Your task to perform on an android device: make emails show in primary in the gmail app Image 0: 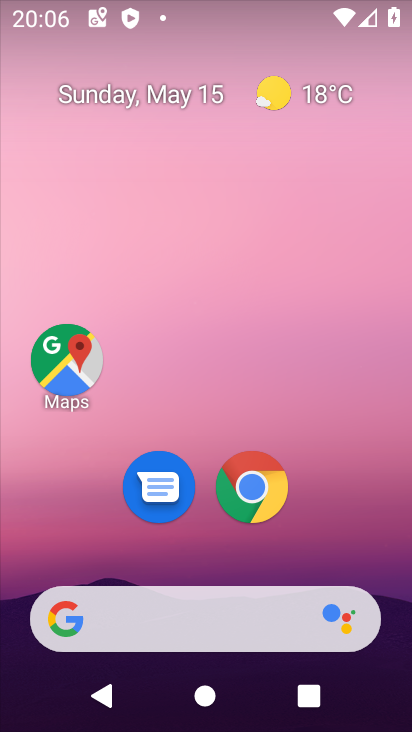
Step 0: click (383, 310)
Your task to perform on an android device: make emails show in primary in the gmail app Image 1: 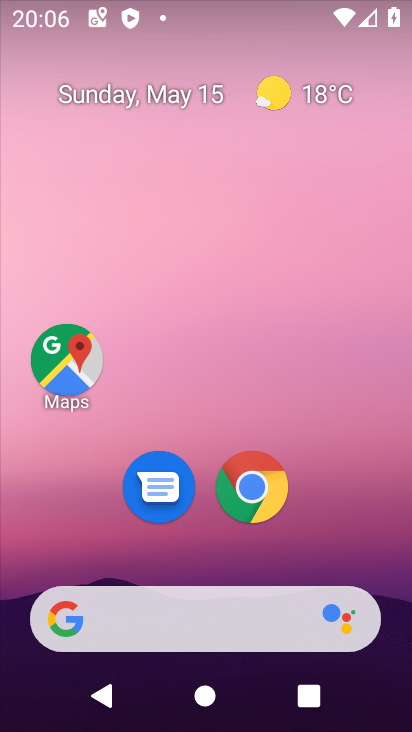
Step 1: drag from (395, 666) to (397, 307)
Your task to perform on an android device: make emails show in primary in the gmail app Image 2: 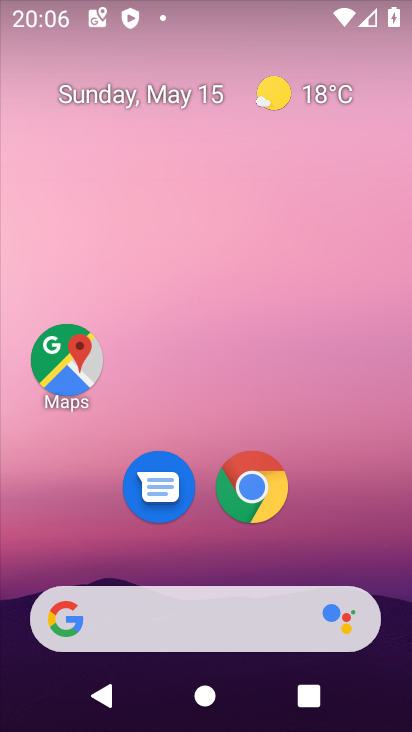
Step 2: drag from (388, 661) to (398, 307)
Your task to perform on an android device: make emails show in primary in the gmail app Image 3: 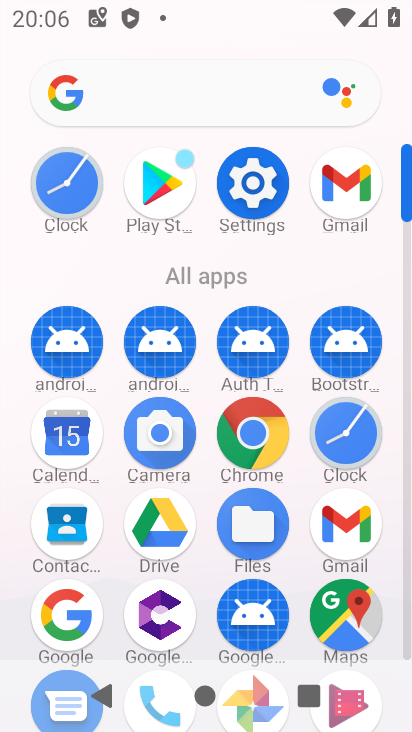
Step 3: click (345, 517)
Your task to perform on an android device: make emails show in primary in the gmail app Image 4: 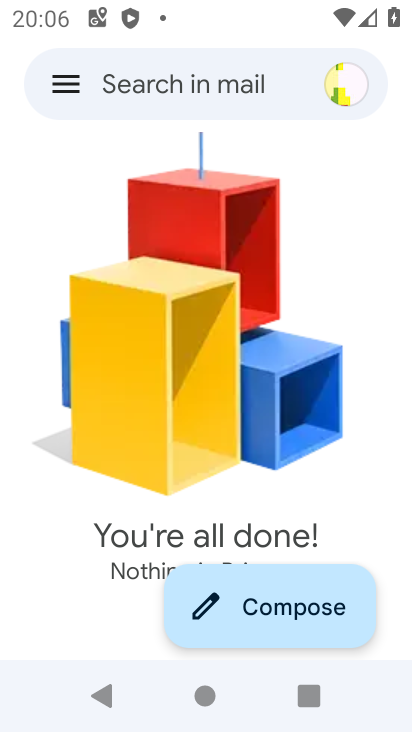
Step 4: click (70, 78)
Your task to perform on an android device: make emails show in primary in the gmail app Image 5: 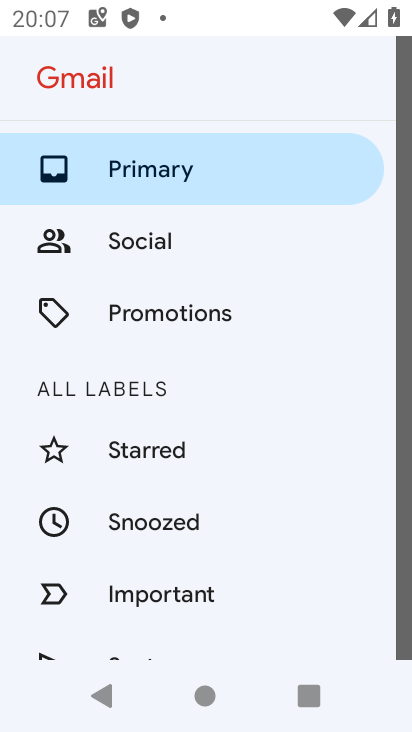
Step 5: click (206, 172)
Your task to perform on an android device: make emails show in primary in the gmail app Image 6: 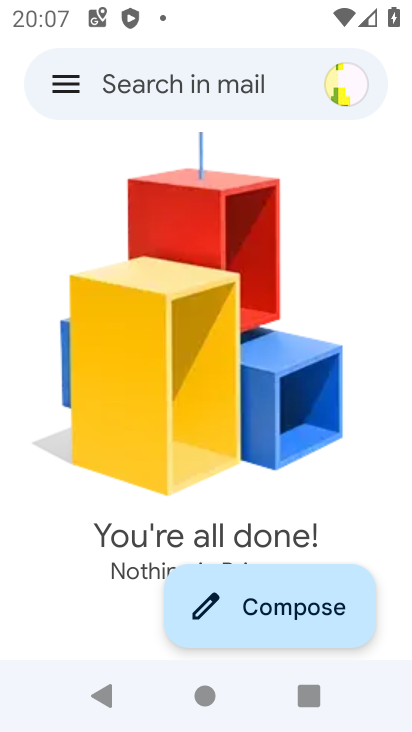
Step 6: task complete